Your task to perform on an android device: Open Reddit.com Image 0: 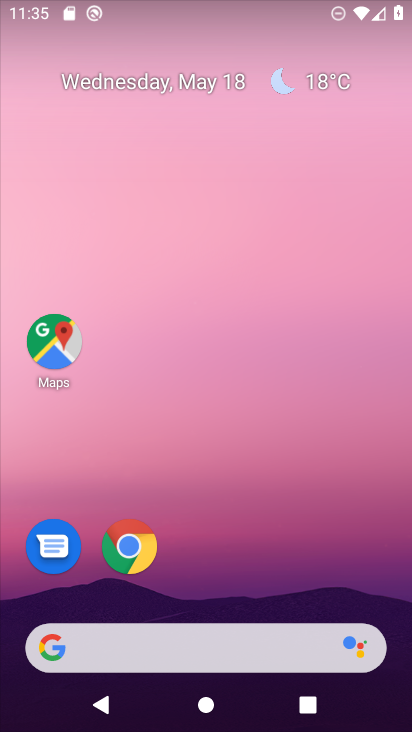
Step 0: click (118, 536)
Your task to perform on an android device: Open Reddit.com Image 1: 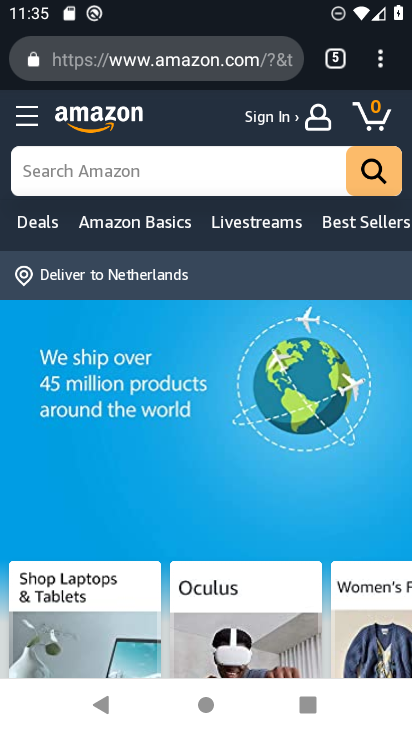
Step 1: click (381, 69)
Your task to perform on an android device: Open Reddit.com Image 2: 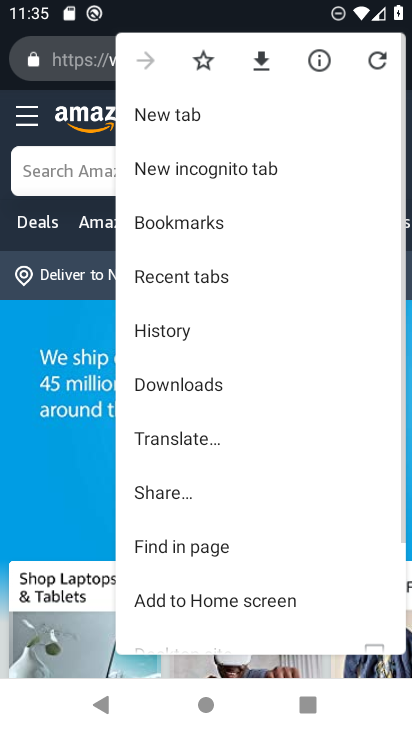
Step 2: click (178, 106)
Your task to perform on an android device: Open Reddit.com Image 3: 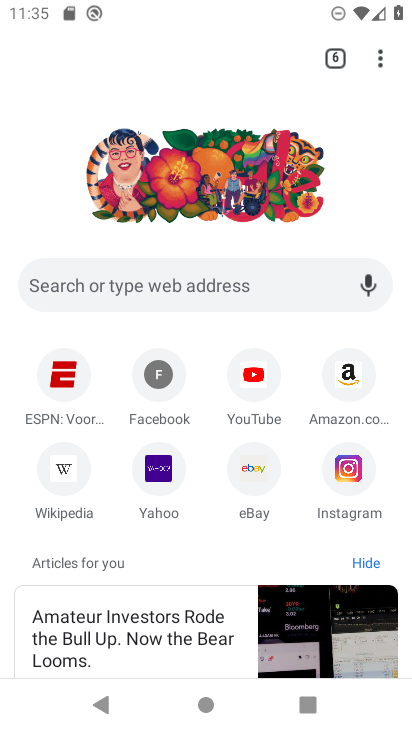
Step 3: click (136, 281)
Your task to perform on an android device: Open Reddit.com Image 4: 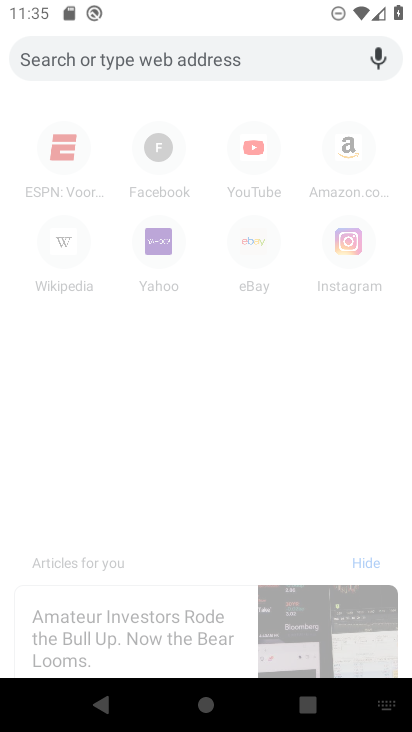
Step 4: type "Reddit .com"
Your task to perform on an android device: Open Reddit.com Image 5: 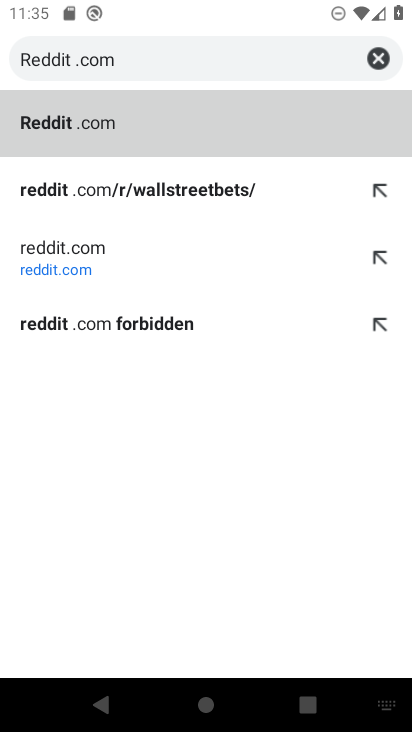
Step 5: click (91, 118)
Your task to perform on an android device: Open Reddit.com Image 6: 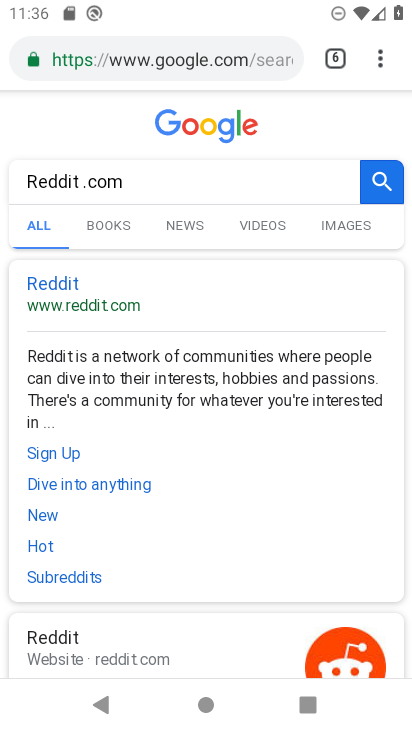
Step 6: click (48, 286)
Your task to perform on an android device: Open Reddit.com Image 7: 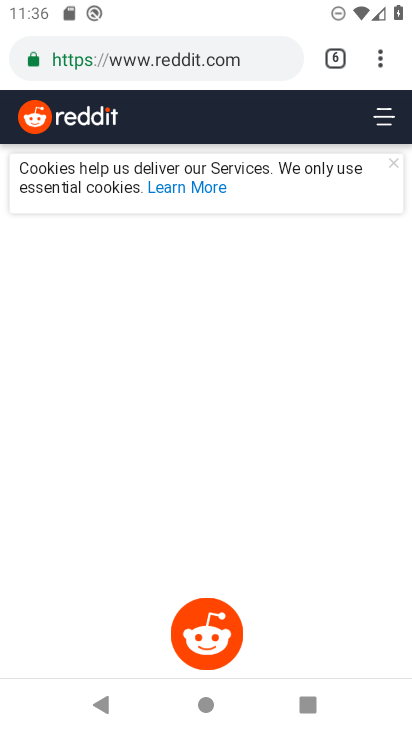
Step 7: task complete